Your task to perform on an android device: Go to privacy settings Image 0: 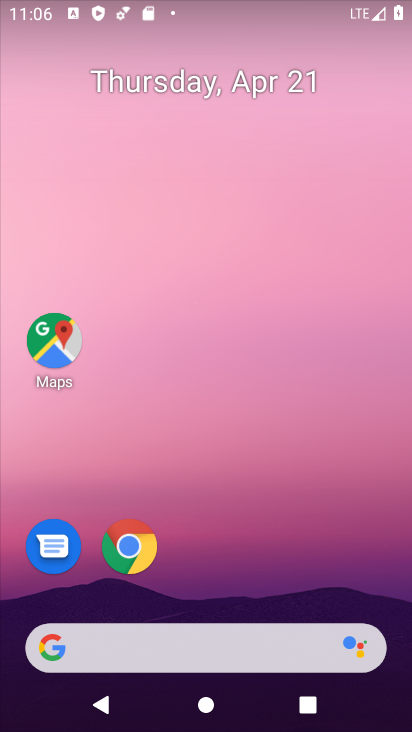
Step 0: drag from (373, 605) to (318, 93)
Your task to perform on an android device: Go to privacy settings Image 1: 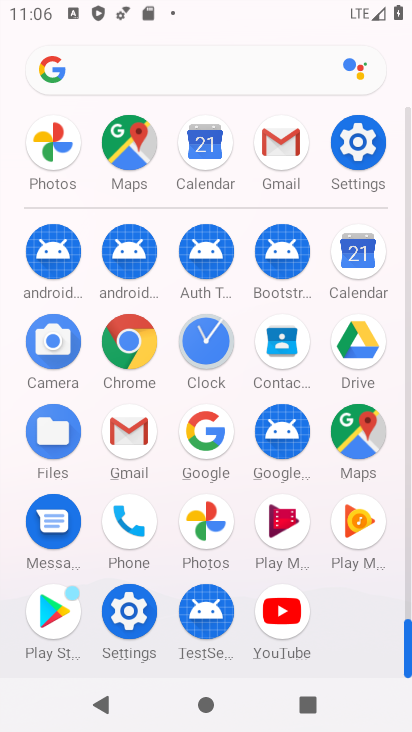
Step 1: click (129, 608)
Your task to perform on an android device: Go to privacy settings Image 2: 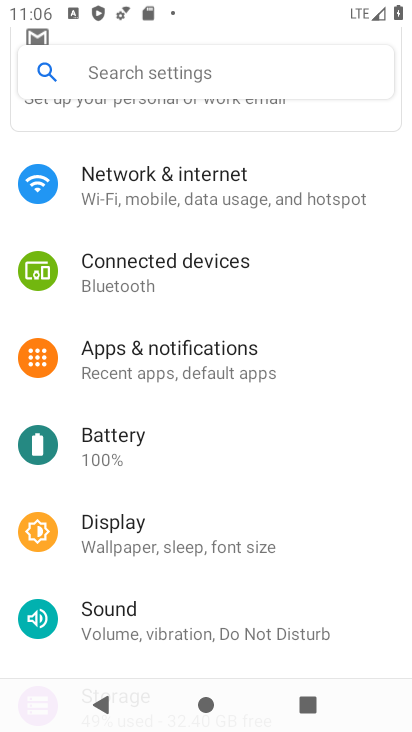
Step 2: drag from (324, 582) to (318, 249)
Your task to perform on an android device: Go to privacy settings Image 3: 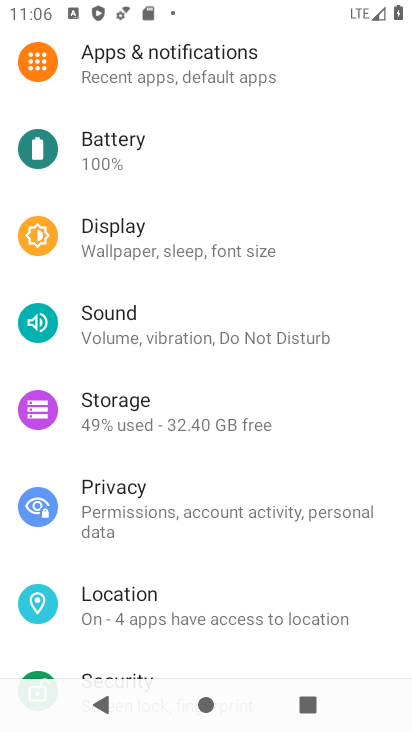
Step 3: click (109, 492)
Your task to perform on an android device: Go to privacy settings Image 4: 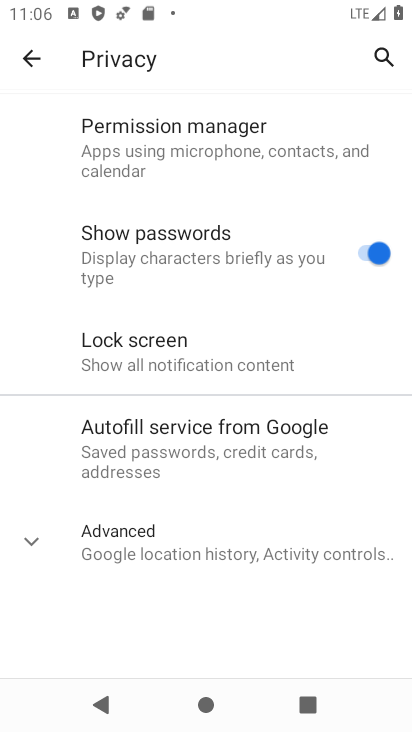
Step 4: click (27, 538)
Your task to perform on an android device: Go to privacy settings Image 5: 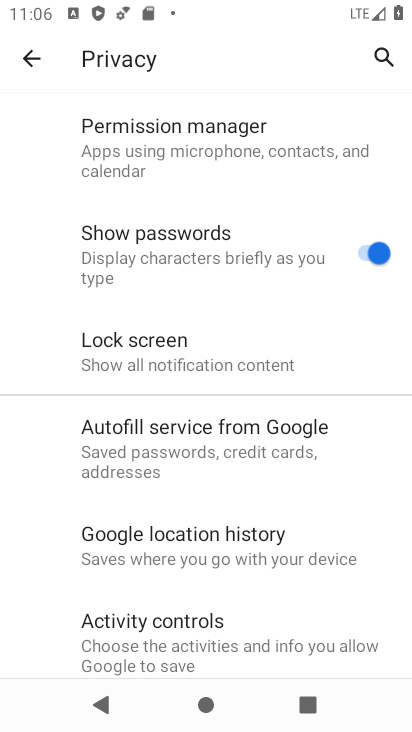
Step 5: task complete